Your task to perform on an android device: Open maps Image 0: 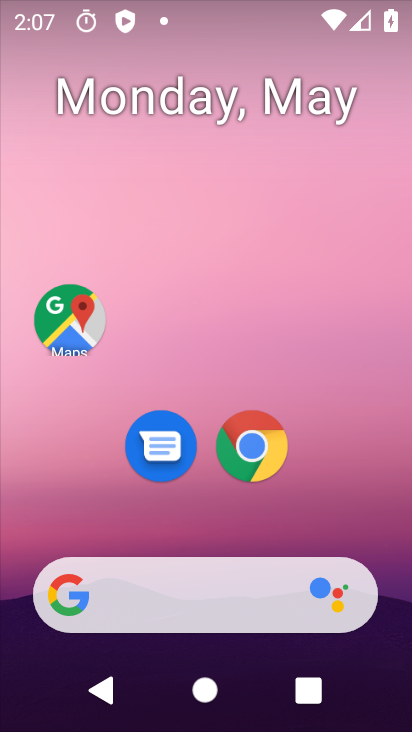
Step 0: click (32, 293)
Your task to perform on an android device: Open maps Image 1: 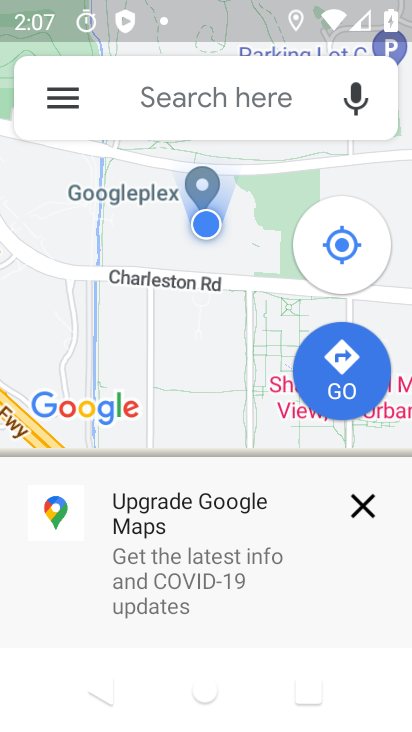
Step 1: task complete